Your task to perform on an android device: Open sound settings Image 0: 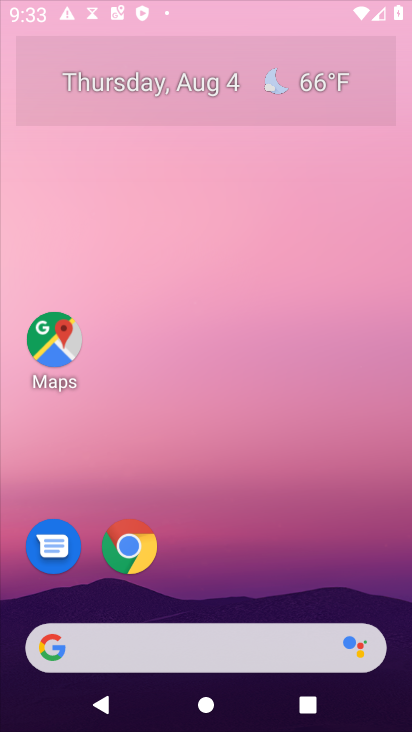
Step 0: press home button
Your task to perform on an android device: Open sound settings Image 1: 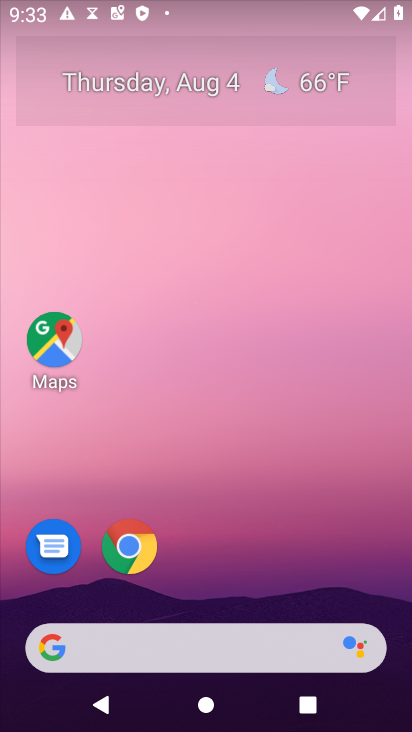
Step 1: drag from (235, 615) to (236, 82)
Your task to perform on an android device: Open sound settings Image 2: 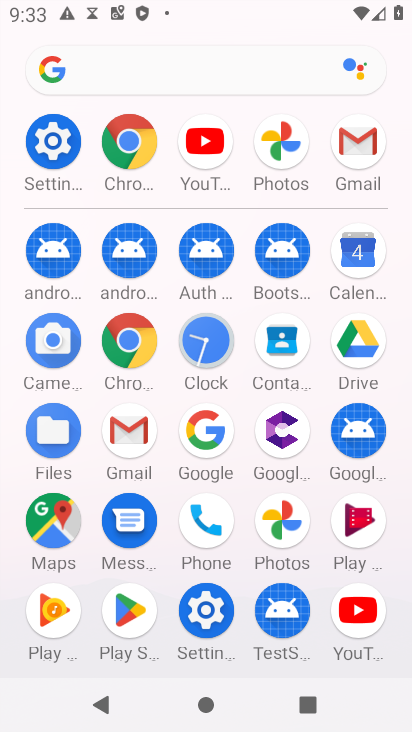
Step 2: click (42, 146)
Your task to perform on an android device: Open sound settings Image 3: 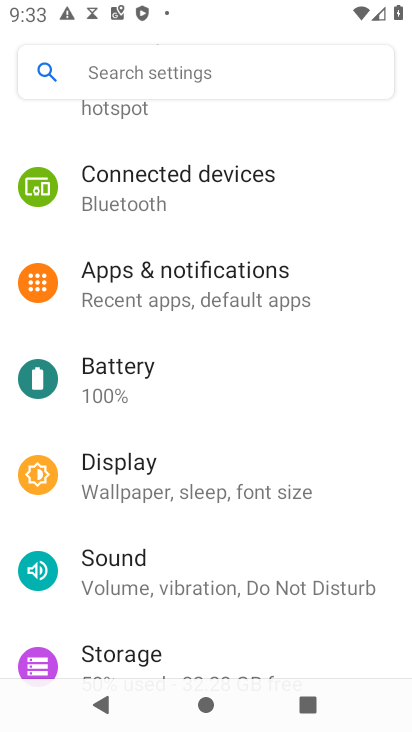
Step 3: click (103, 573)
Your task to perform on an android device: Open sound settings Image 4: 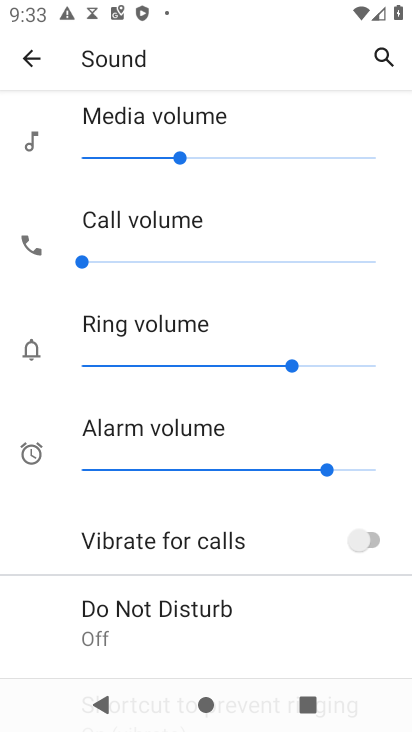
Step 4: task complete